Your task to perform on an android device: turn on airplane mode Image 0: 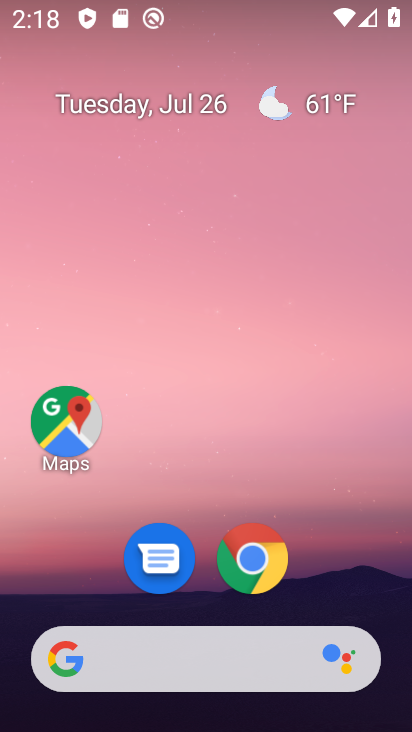
Step 0: drag from (56, 578) to (184, 93)
Your task to perform on an android device: turn on airplane mode Image 1: 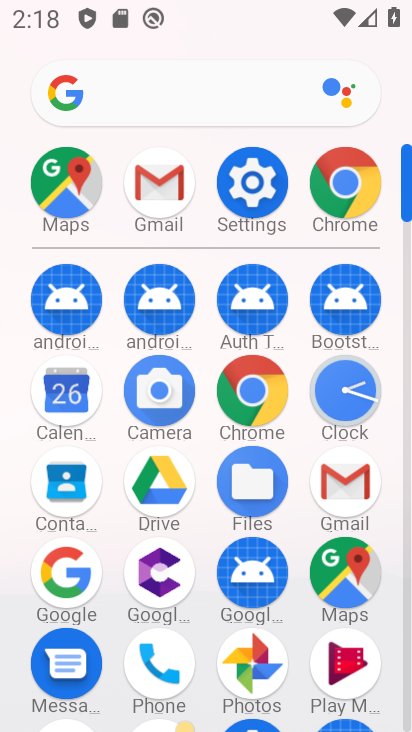
Step 1: drag from (352, 14) to (286, 488)
Your task to perform on an android device: turn on airplane mode Image 2: 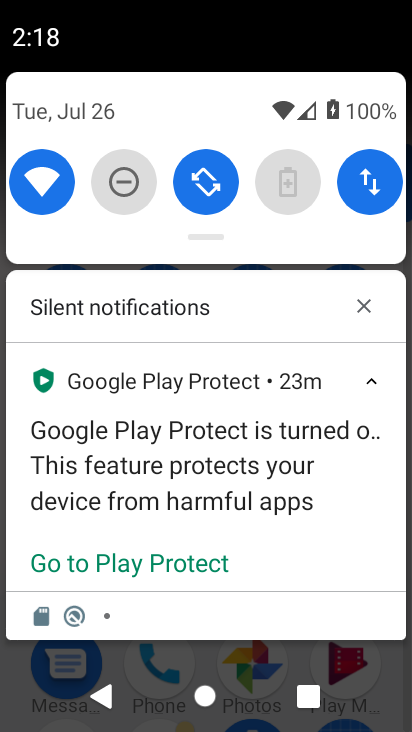
Step 2: drag from (200, 220) to (274, 675)
Your task to perform on an android device: turn on airplane mode Image 3: 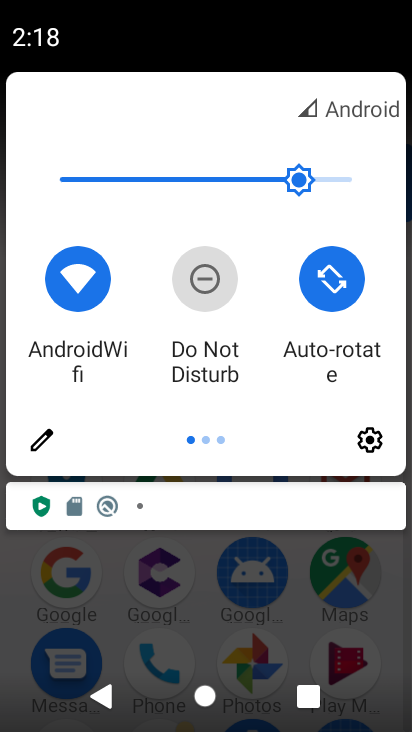
Step 3: drag from (373, 269) to (8, 313)
Your task to perform on an android device: turn on airplane mode Image 4: 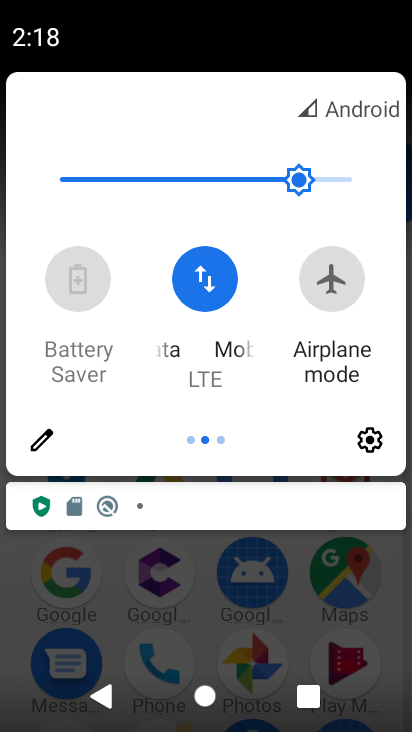
Step 4: click (341, 276)
Your task to perform on an android device: turn on airplane mode Image 5: 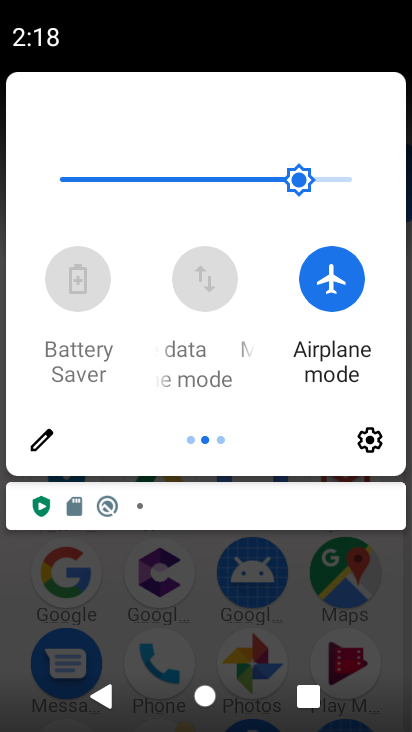
Step 5: task complete